Your task to perform on an android device: Go to network settings Image 0: 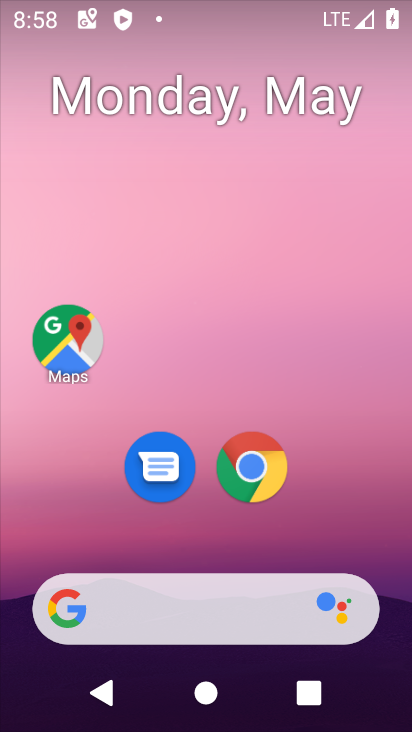
Step 0: drag from (317, 528) to (259, 44)
Your task to perform on an android device: Go to network settings Image 1: 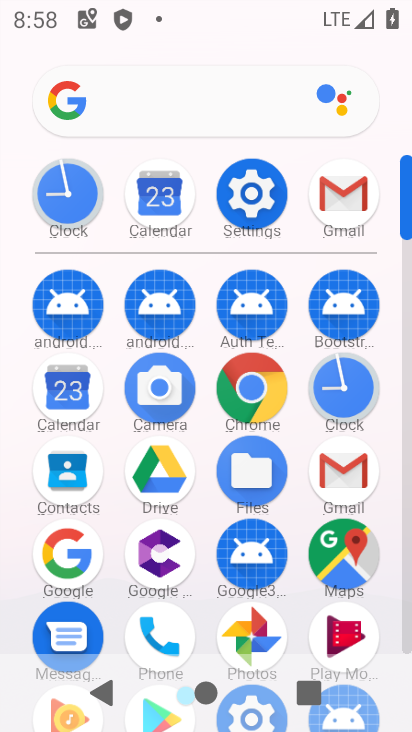
Step 1: click (249, 198)
Your task to perform on an android device: Go to network settings Image 2: 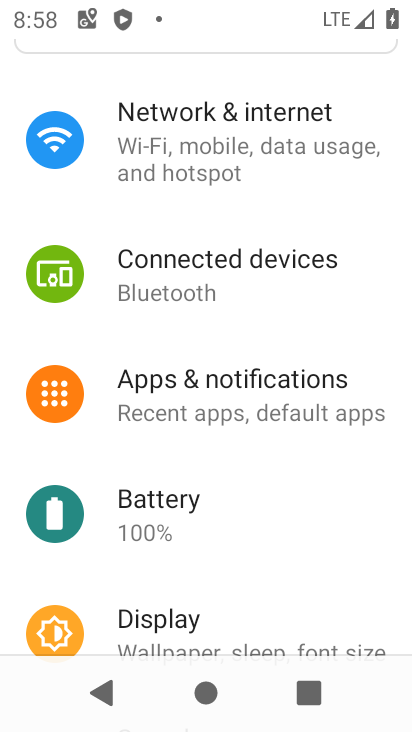
Step 2: click (184, 155)
Your task to perform on an android device: Go to network settings Image 3: 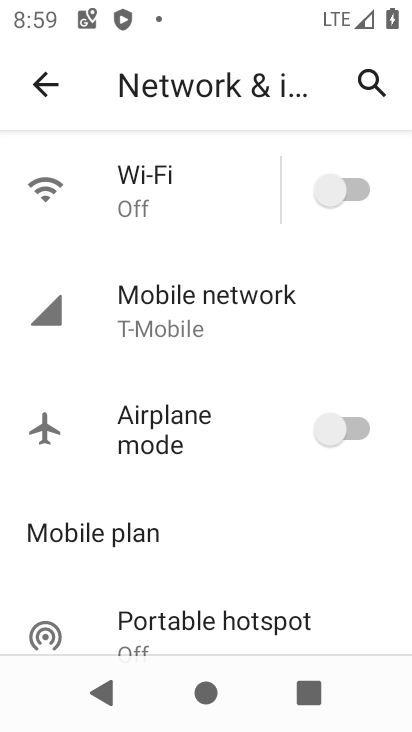
Step 3: task complete